Your task to perform on an android device: create a new album in the google photos Image 0: 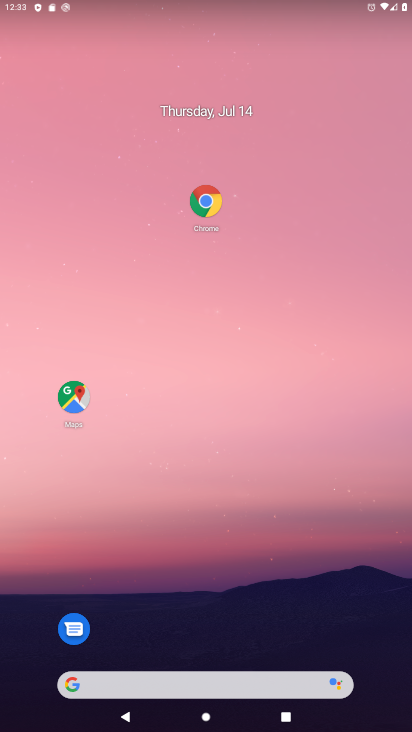
Step 0: drag from (208, 654) to (146, 109)
Your task to perform on an android device: create a new album in the google photos Image 1: 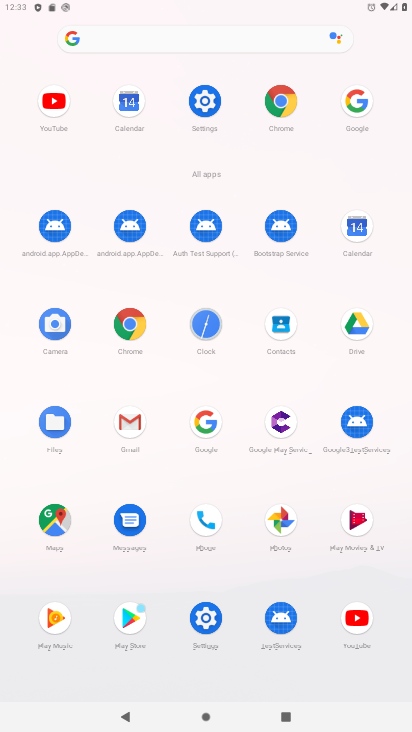
Step 1: click (263, 506)
Your task to perform on an android device: create a new album in the google photos Image 2: 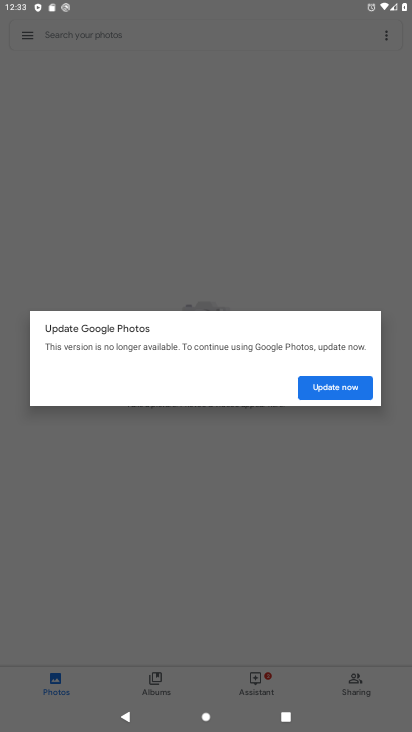
Step 2: click (327, 550)
Your task to perform on an android device: create a new album in the google photos Image 3: 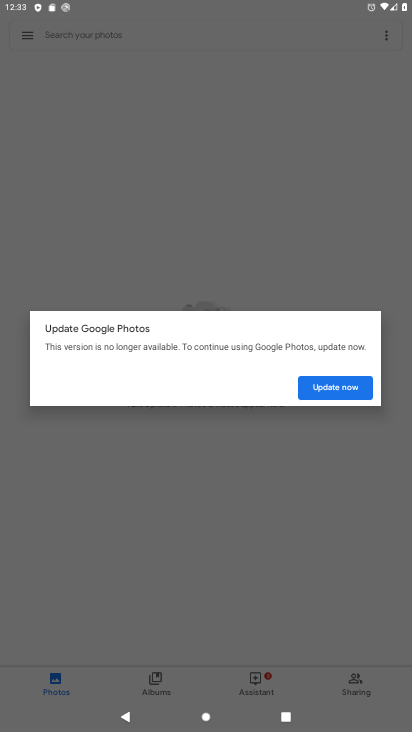
Step 3: click (337, 376)
Your task to perform on an android device: create a new album in the google photos Image 4: 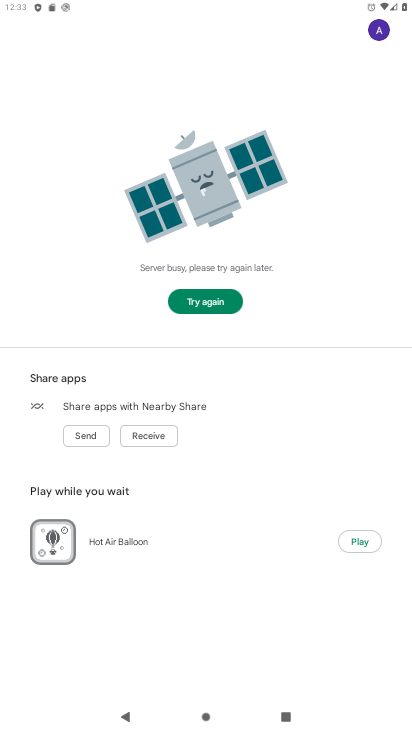
Step 4: click (224, 303)
Your task to perform on an android device: create a new album in the google photos Image 5: 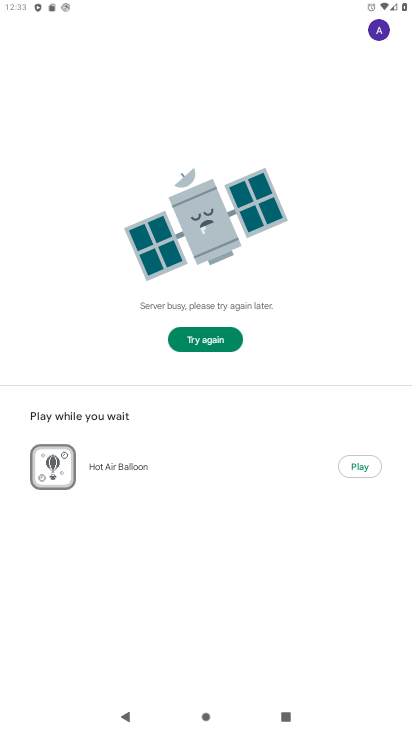
Step 5: task complete